Your task to perform on an android device: check out phone information Image 0: 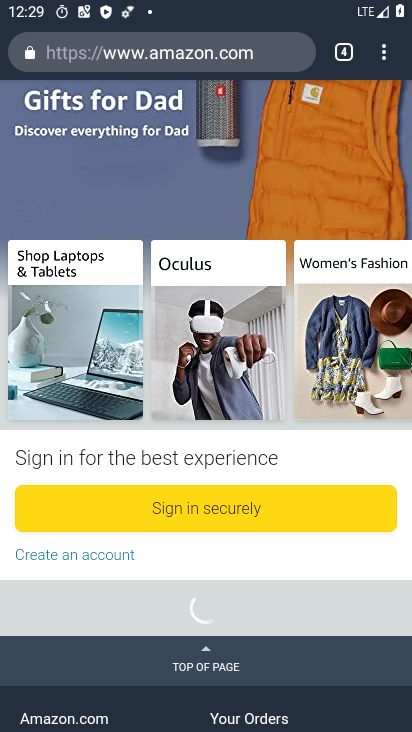
Step 0: press home button
Your task to perform on an android device: check out phone information Image 1: 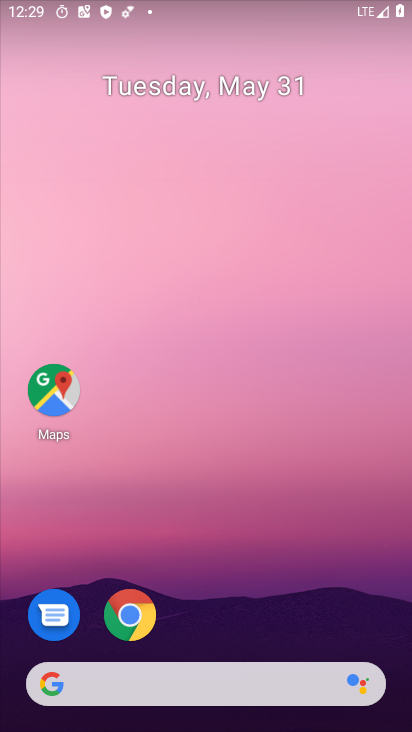
Step 1: drag from (193, 640) to (283, 16)
Your task to perform on an android device: check out phone information Image 2: 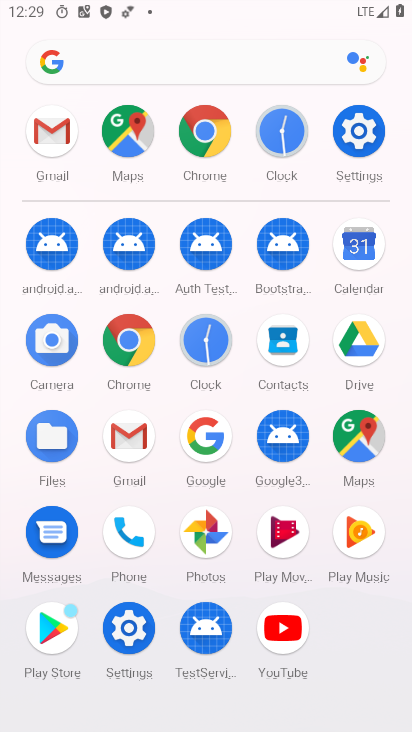
Step 2: click (364, 153)
Your task to perform on an android device: check out phone information Image 3: 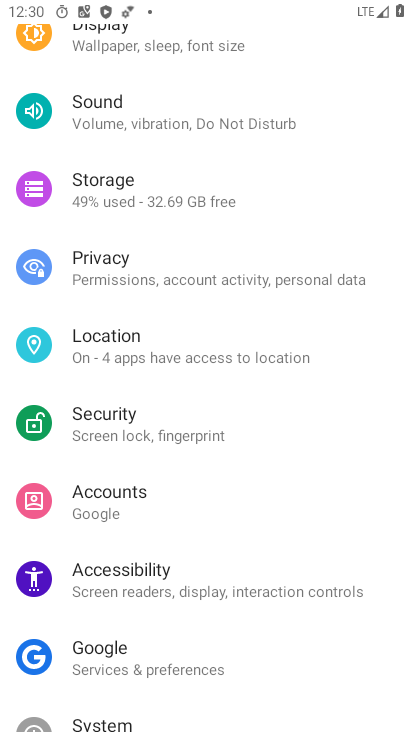
Step 3: drag from (157, 582) to (192, 297)
Your task to perform on an android device: check out phone information Image 4: 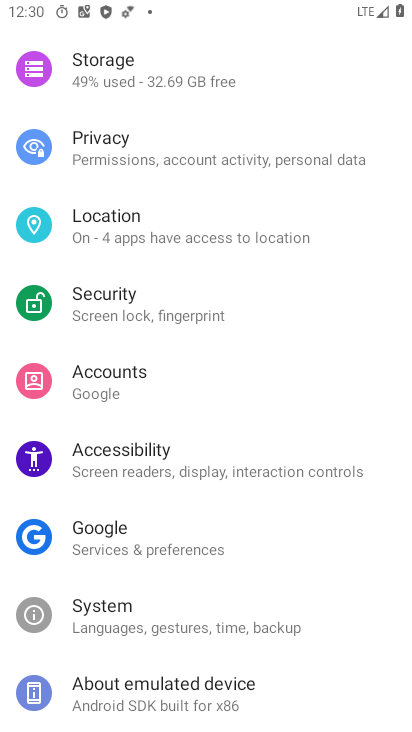
Step 4: click (152, 693)
Your task to perform on an android device: check out phone information Image 5: 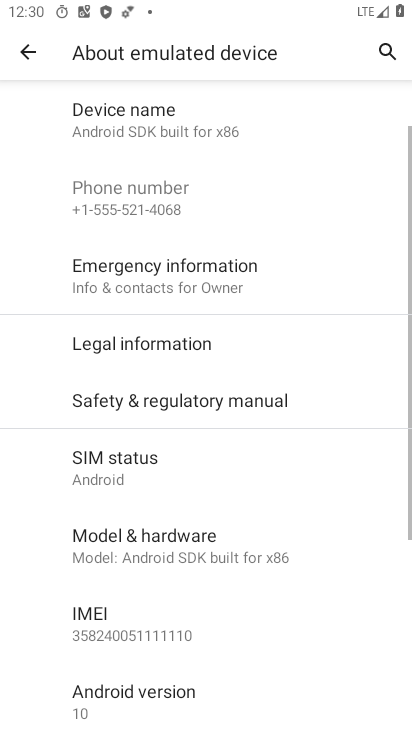
Step 5: task complete